Your task to perform on an android device: change timer sound Image 0: 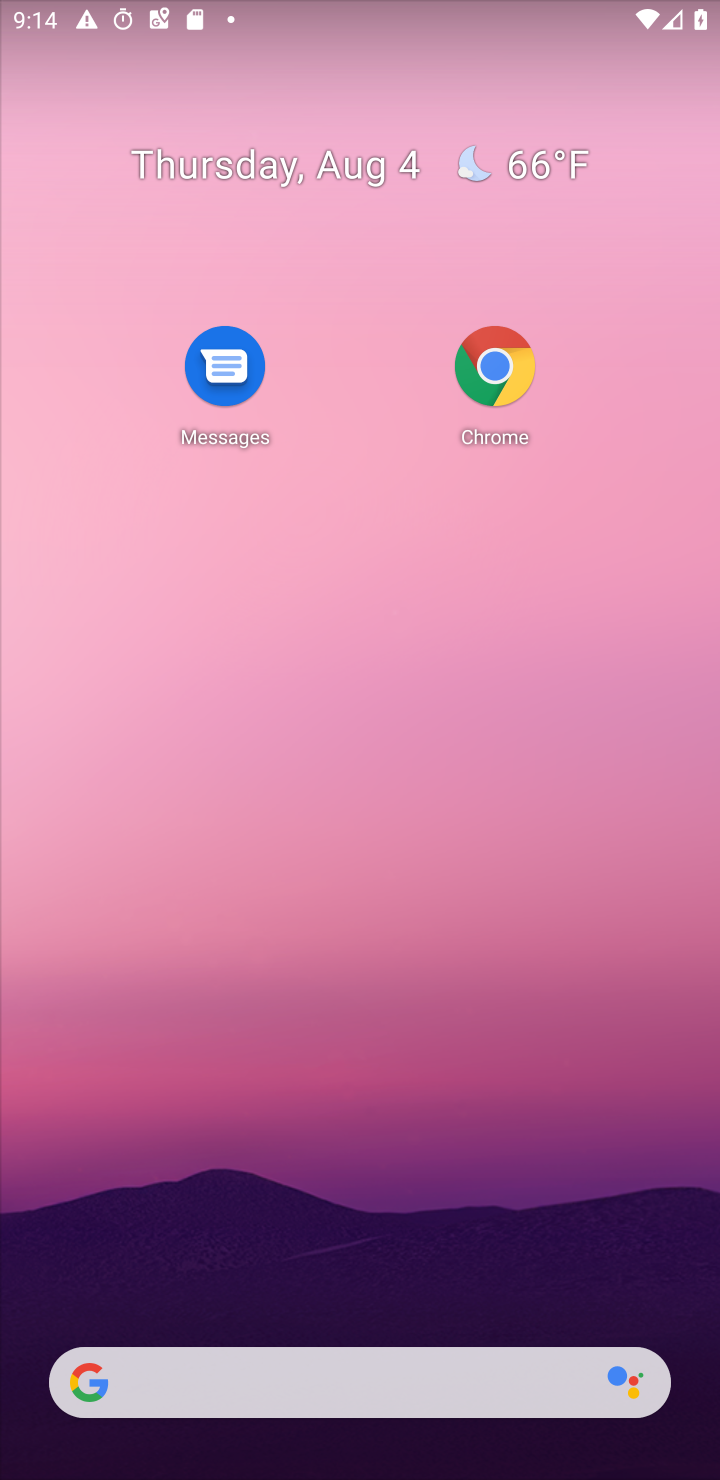
Step 0: drag from (457, 1373) to (588, 109)
Your task to perform on an android device: change timer sound Image 1: 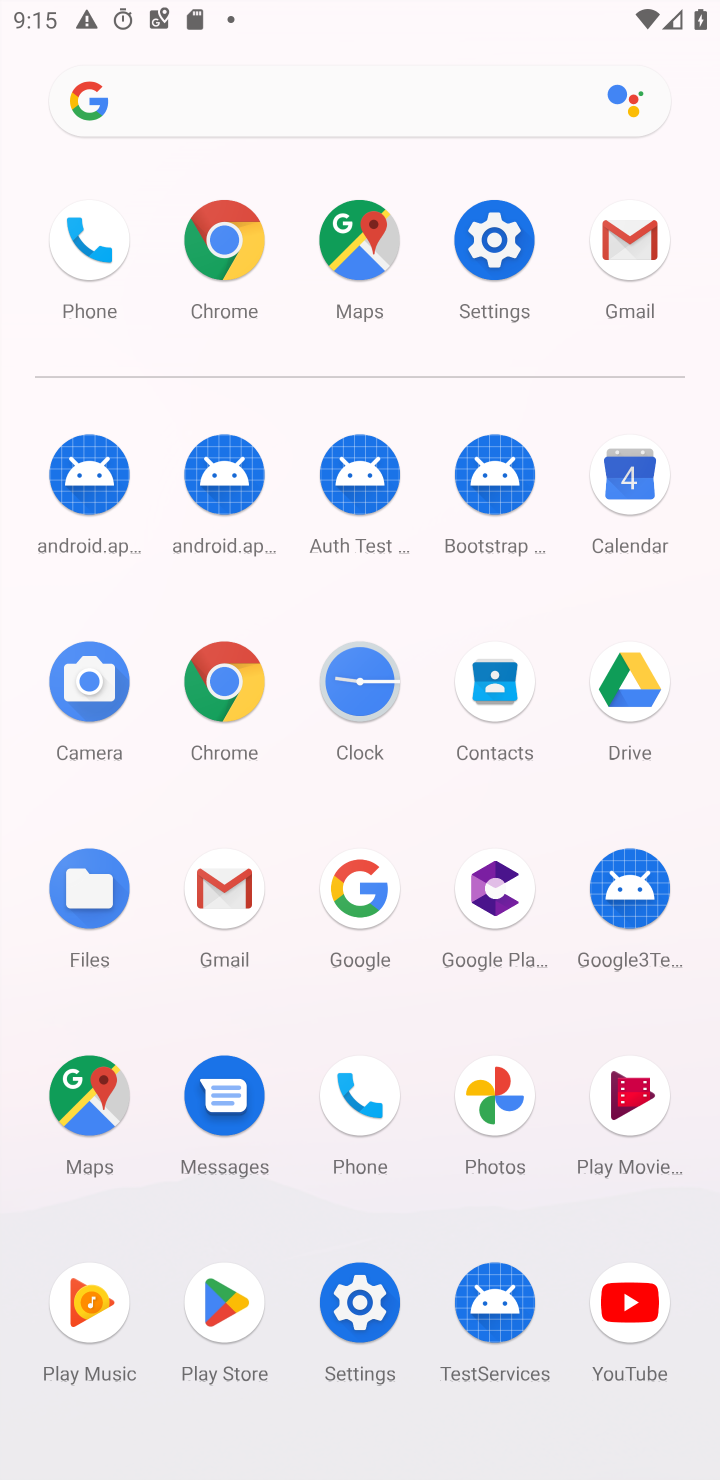
Step 1: click (536, 248)
Your task to perform on an android device: change timer sound Image 2: 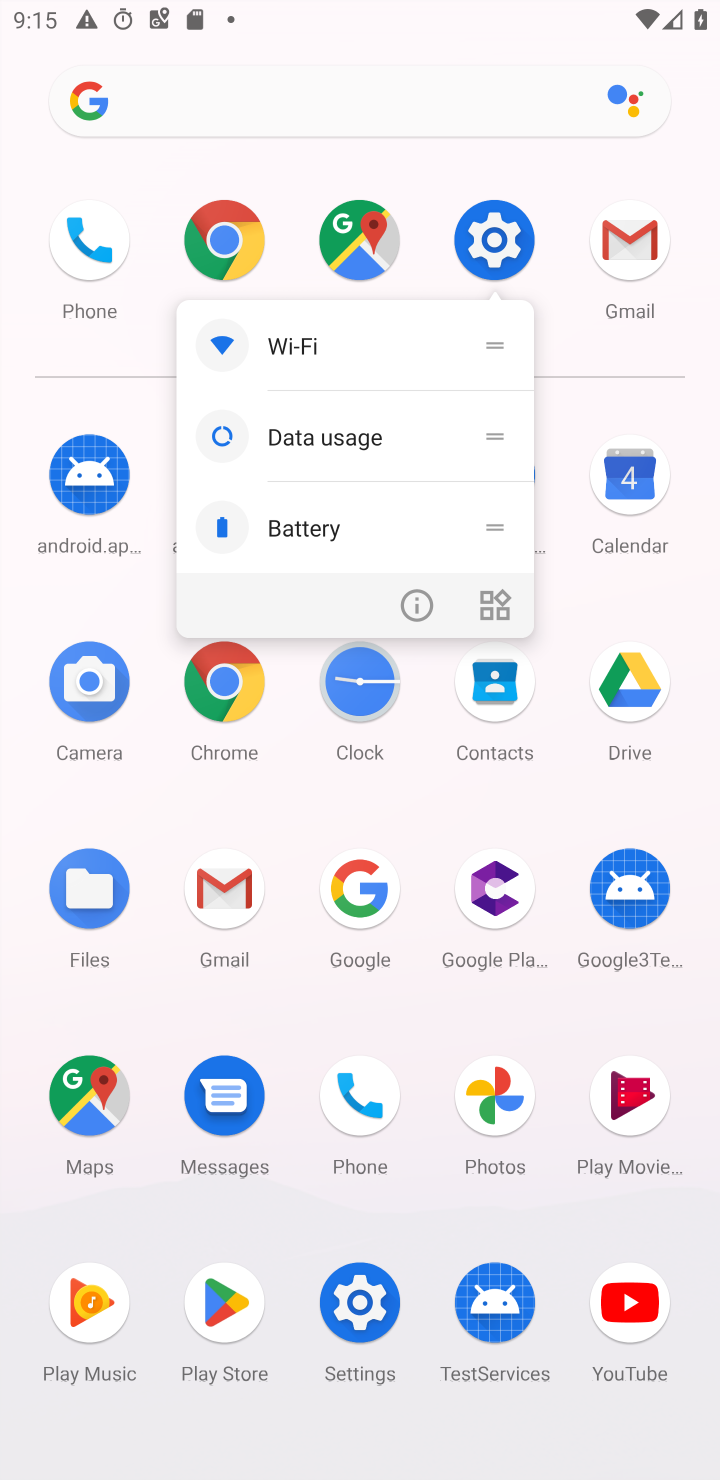
Step 2: click (492, 226)
Your task to perform on an android device: change timer sound Image 3: 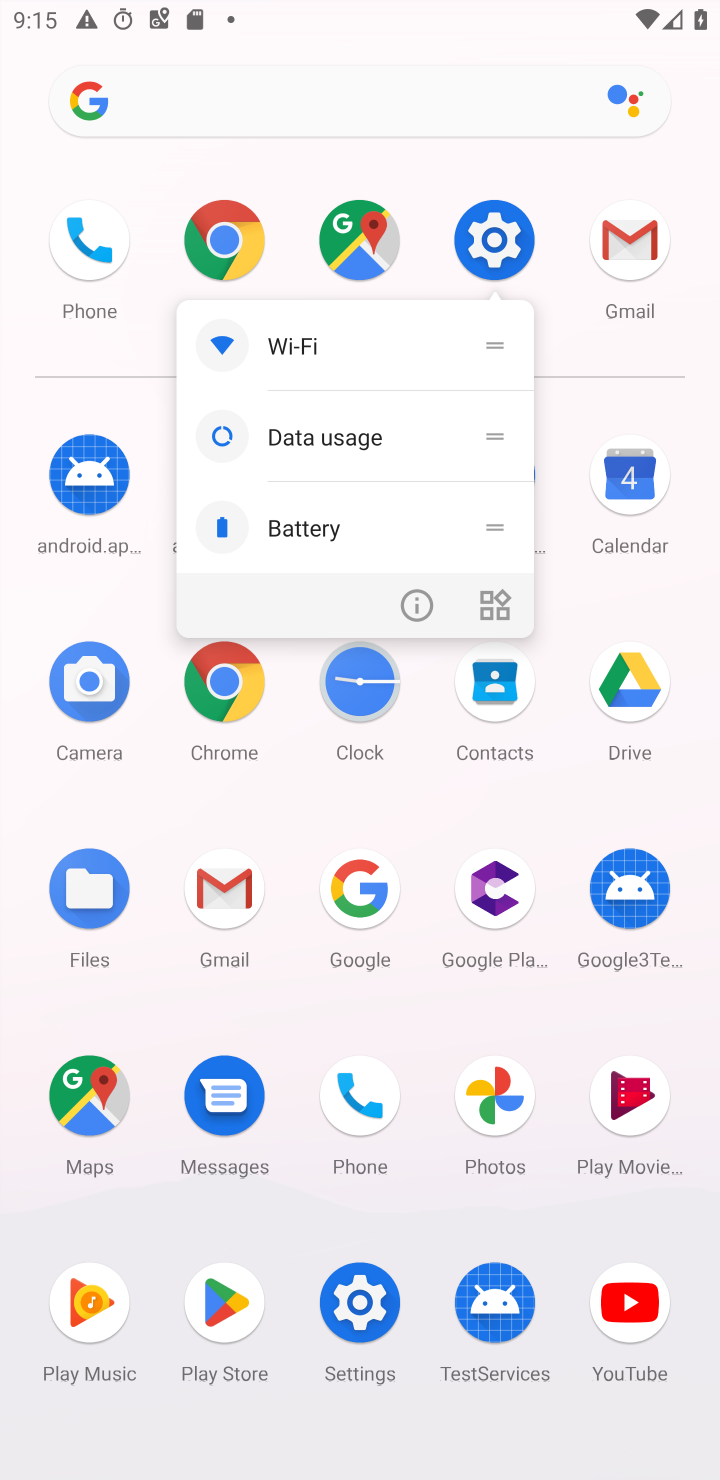
Step 3: click (494, 252)
Your task to perform on an android device: change timer sound Image 4: 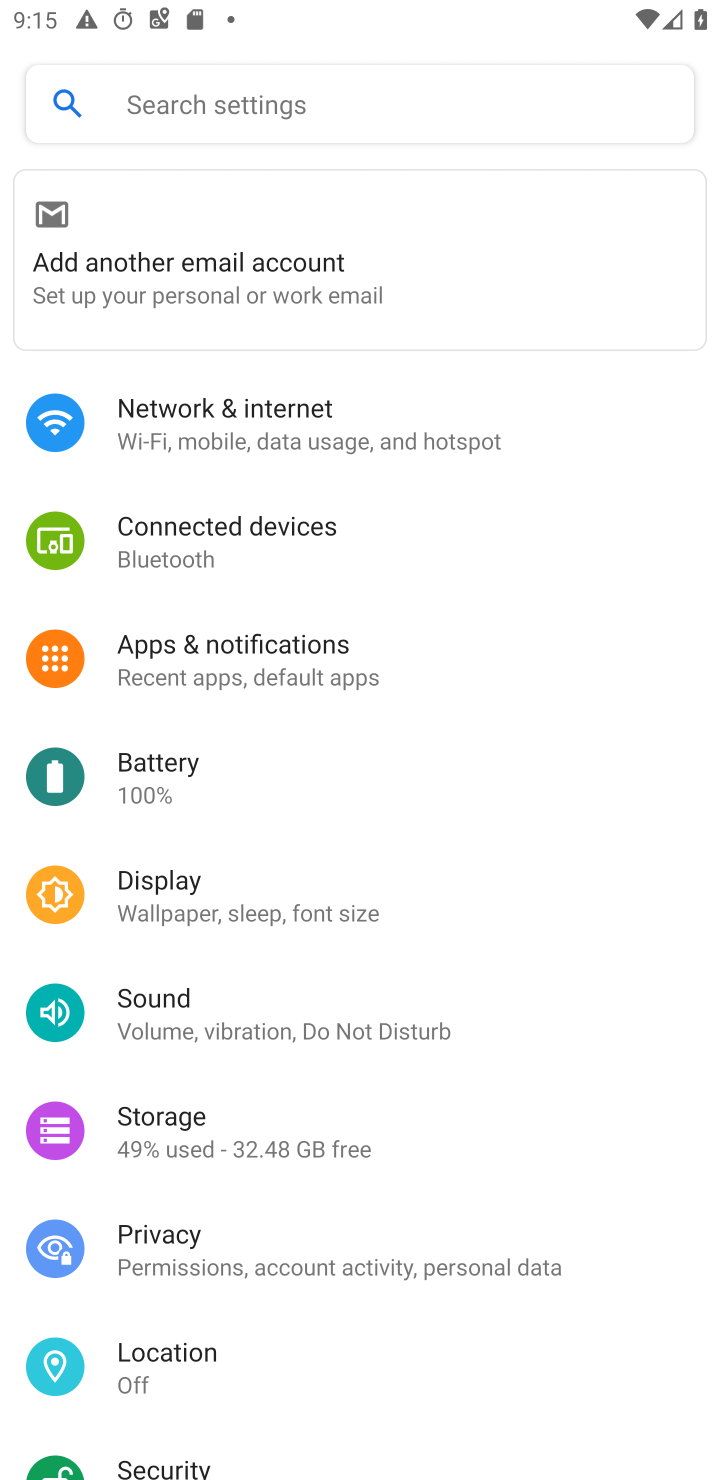
Step 4: press home button
Your task to perform on an android device: change timer sound Image 5: 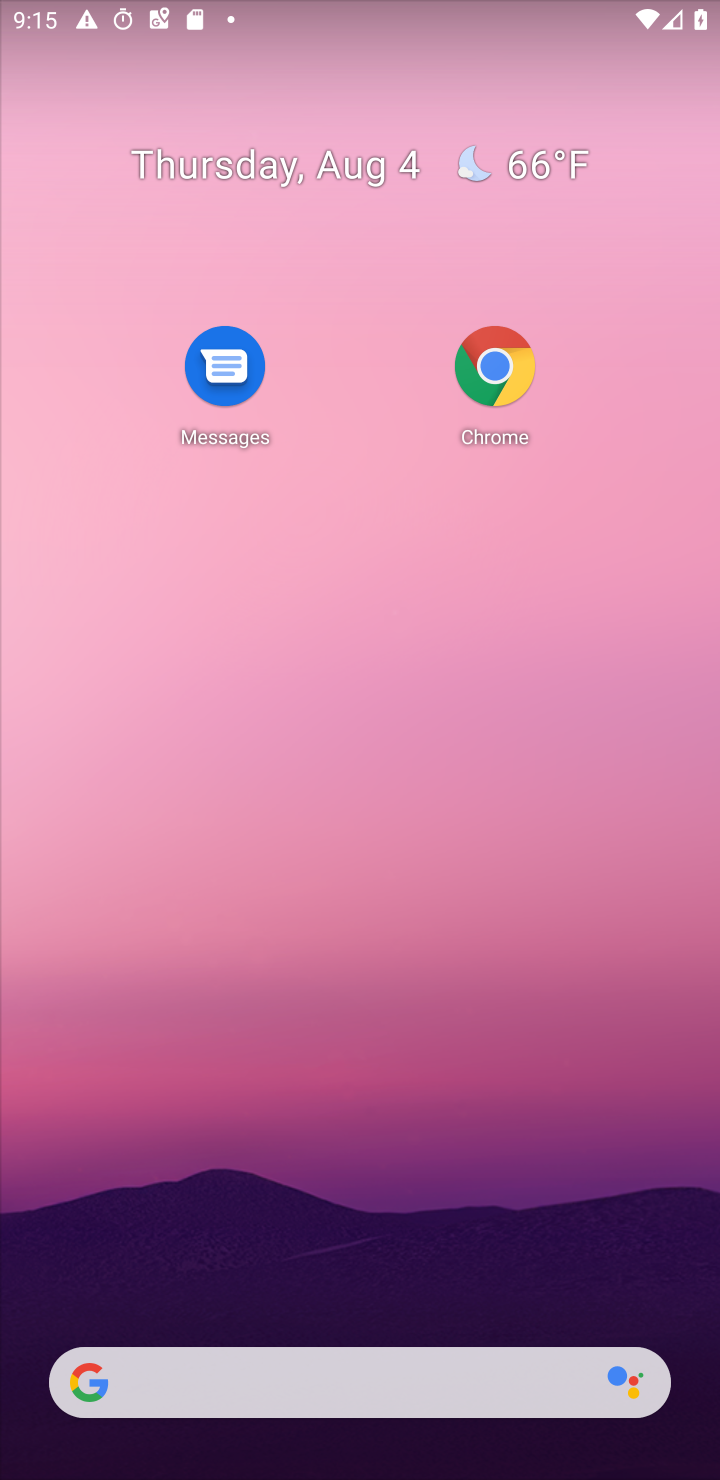
Step 5: drag from (516, 1446) to (689, 374)
Your task to perform on an android device: change timer sound Image 6: 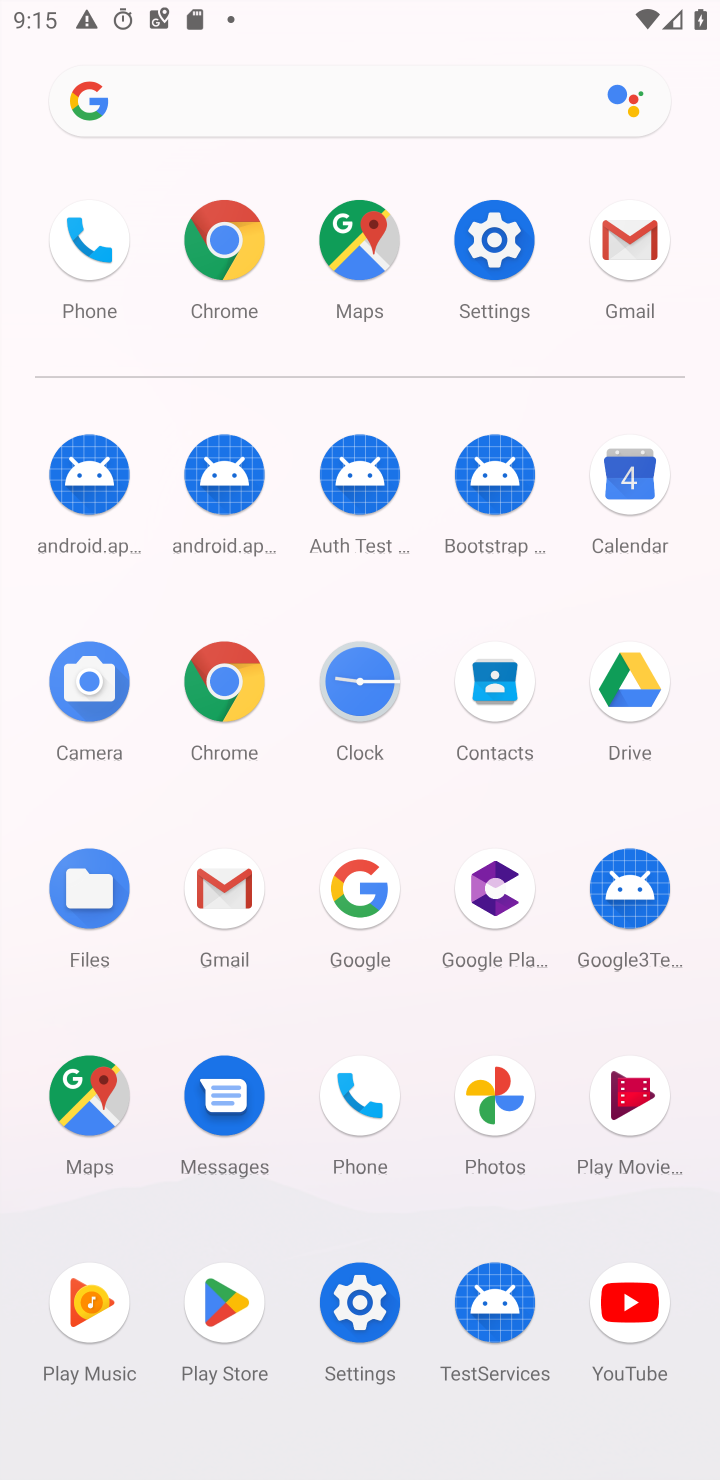
Step 6: click (375, 710)
Your task to perform on an android device: change timer sound Image 7: 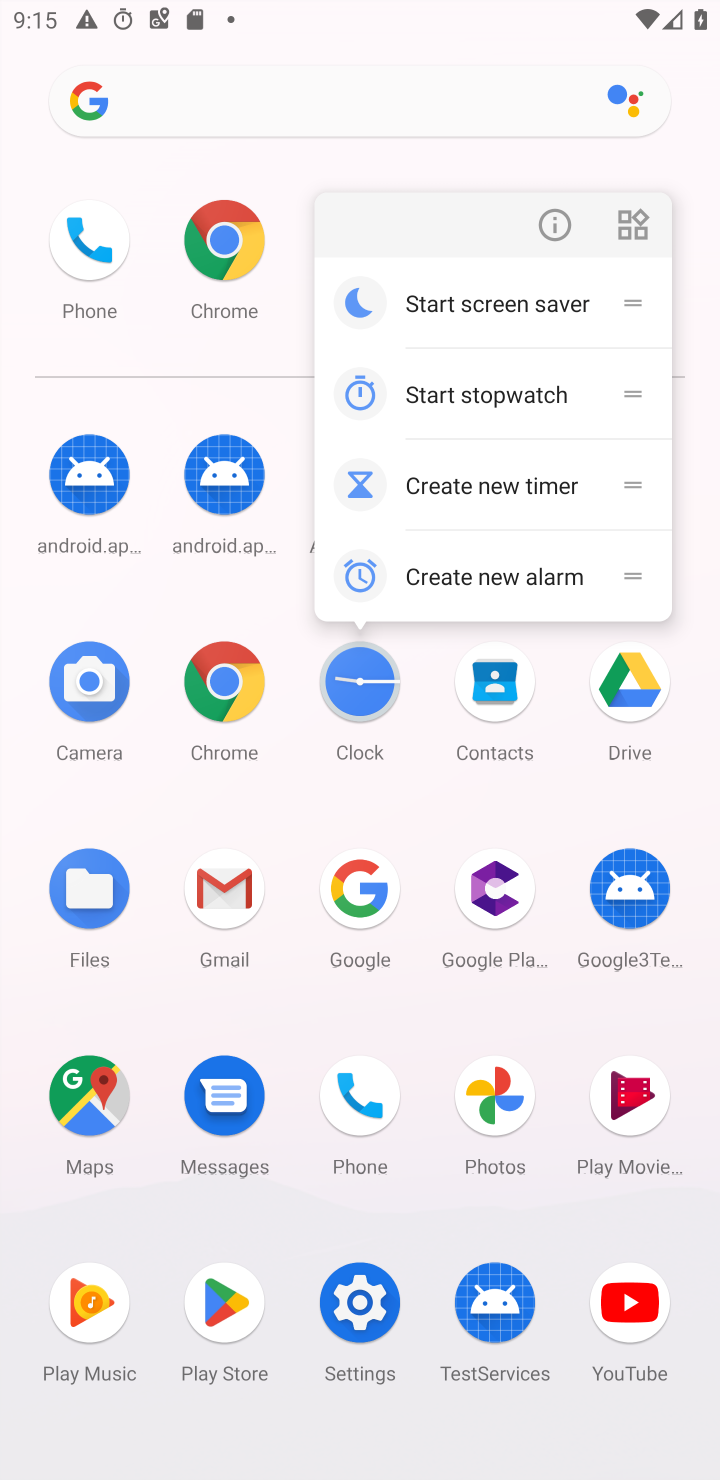
Step 7: click (374, 685)
Your task to perform on an android device: change timer sound Image 8: 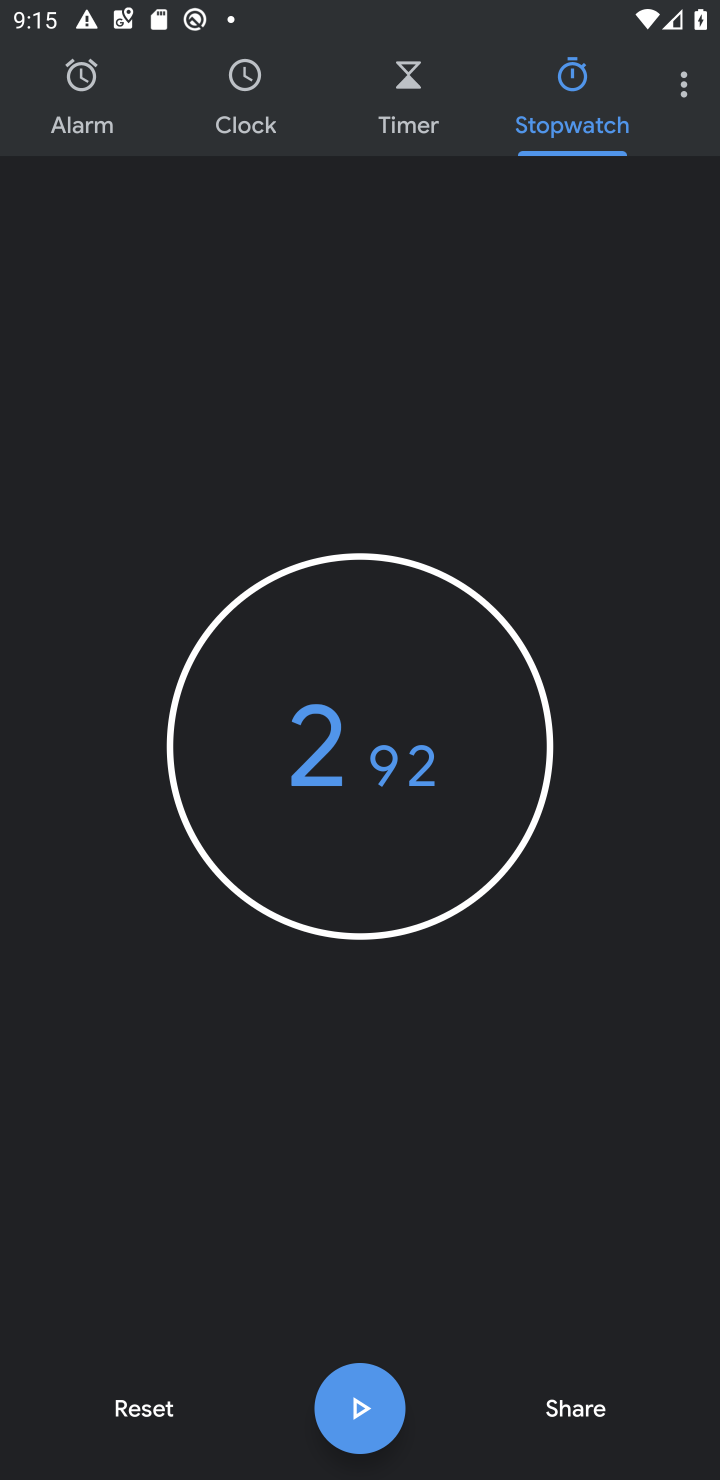
Step 8: click (682, 107)
Your task to perform on an android device: change timer sound Image 9: 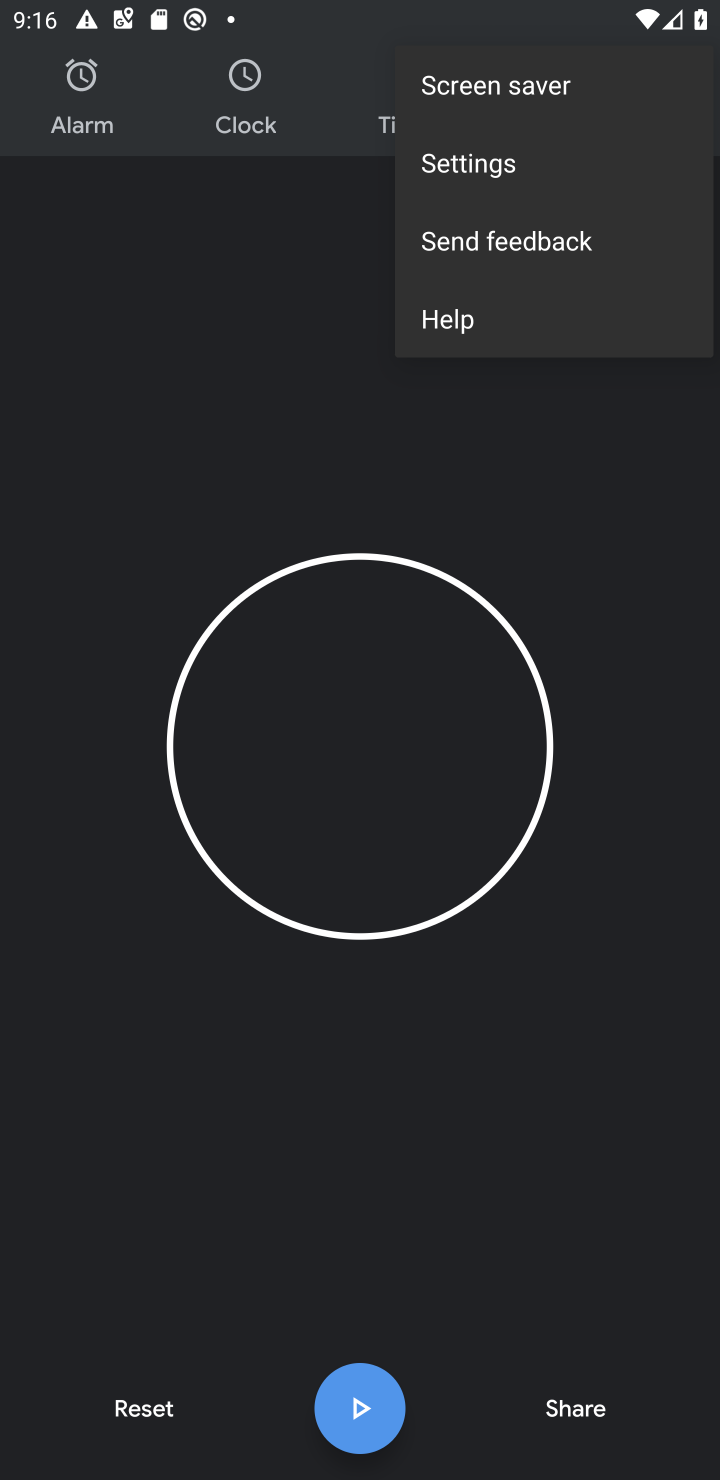
Step 9: click (494, 157)
Your task to perform on an android device: change timer sound Image 10: 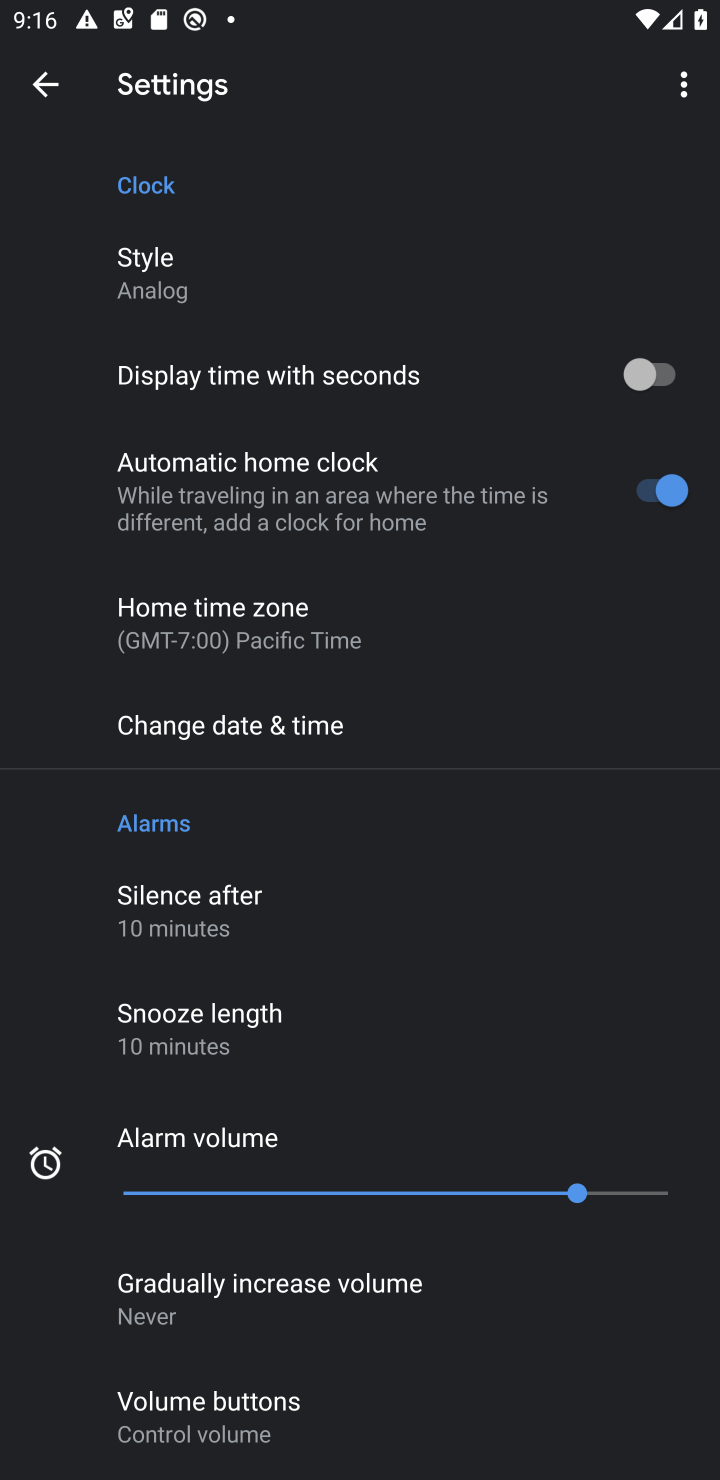
Step 10: drag from (380, 1256) to (575, 750)
Your task to perform on an android device: change timer sound Image 11: 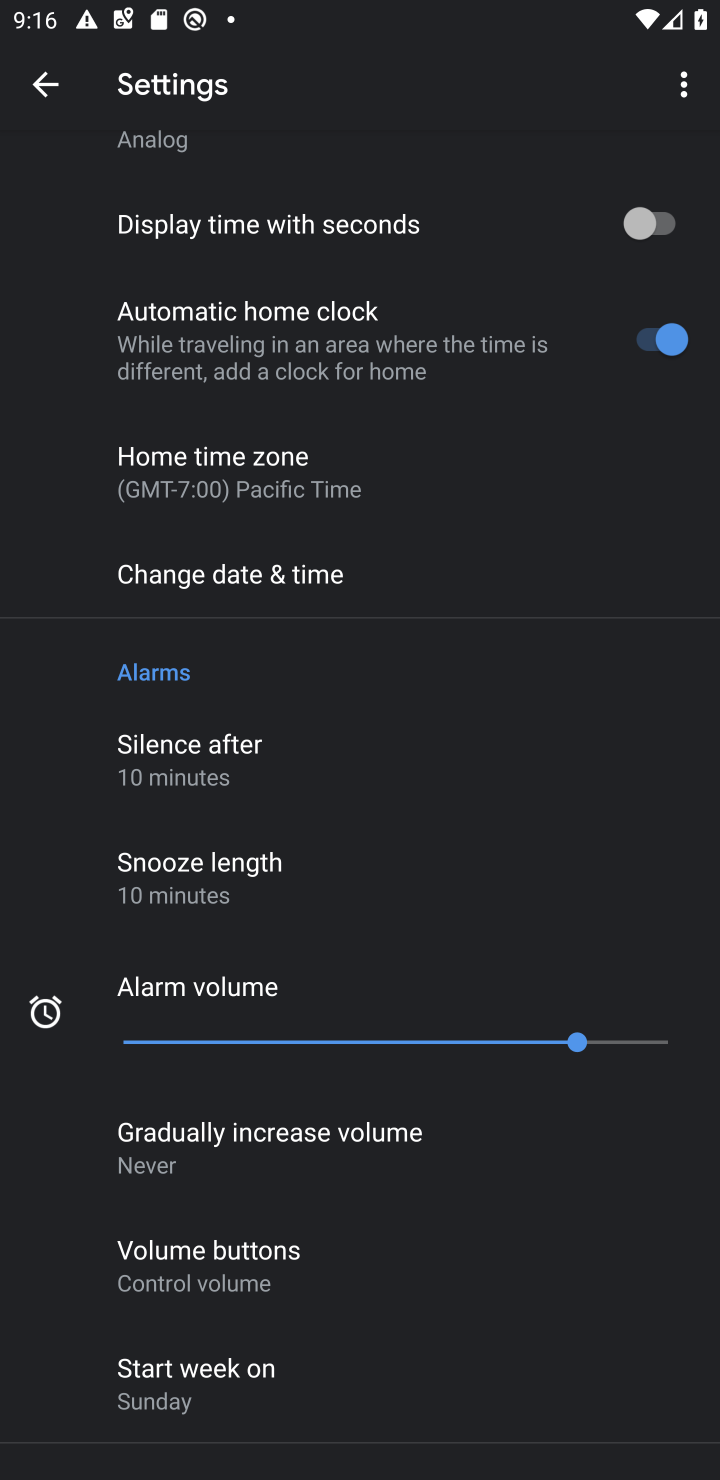
Step 11: drag from (313, 1273) to (503, 868)
Your task to perform on an android device: change timer sound Image 12: 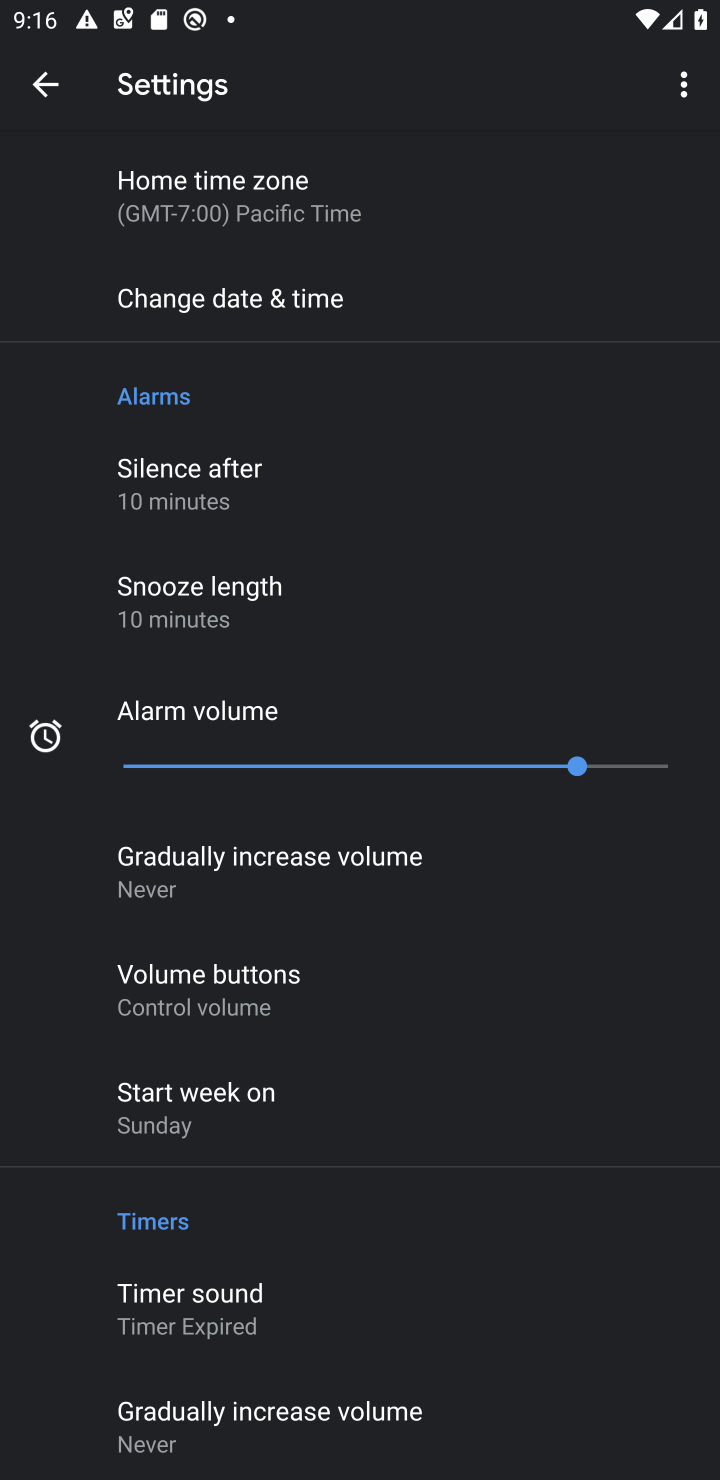
Step 12: click (170, 1302)
Your task to perform on an android device: change timer sound Image 13: 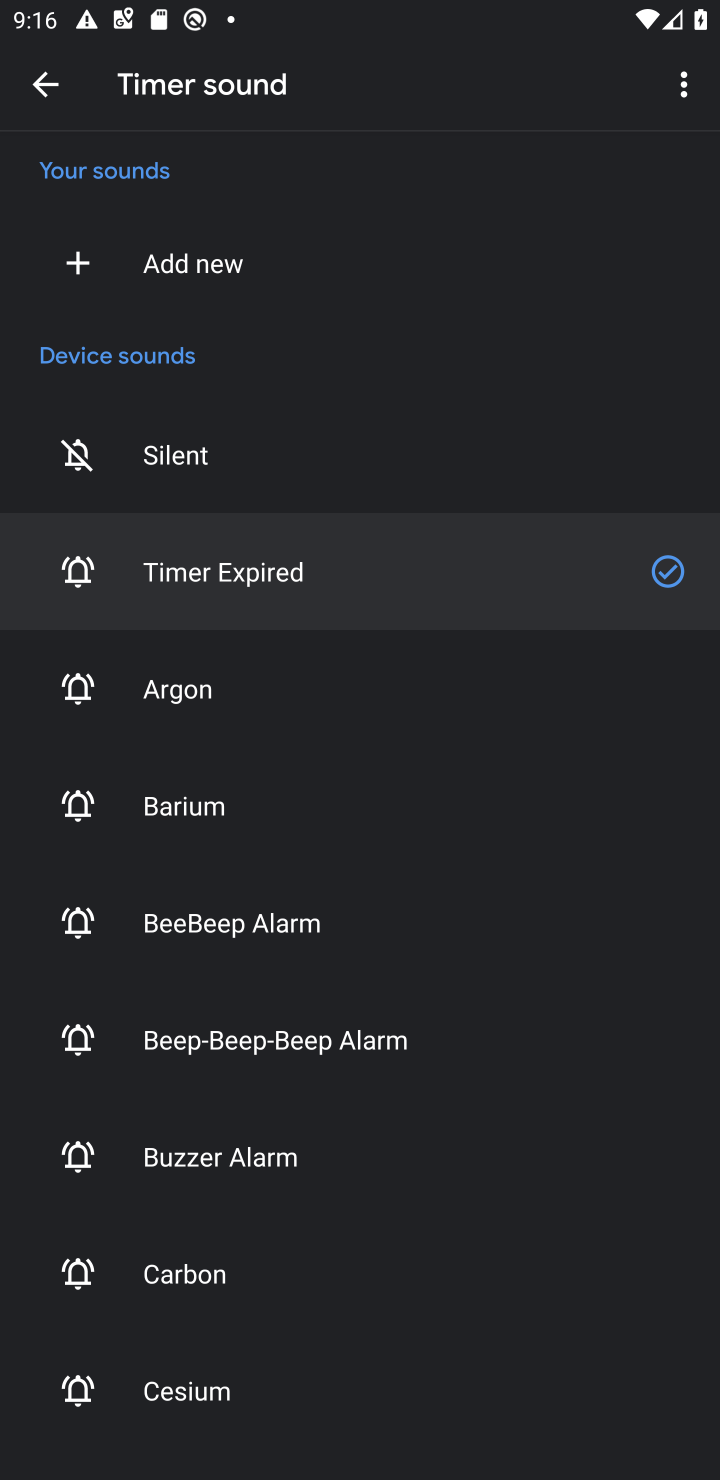
Step 13: click (211, 1033)
Your task to perform on an android device: change timer sound Image 14: 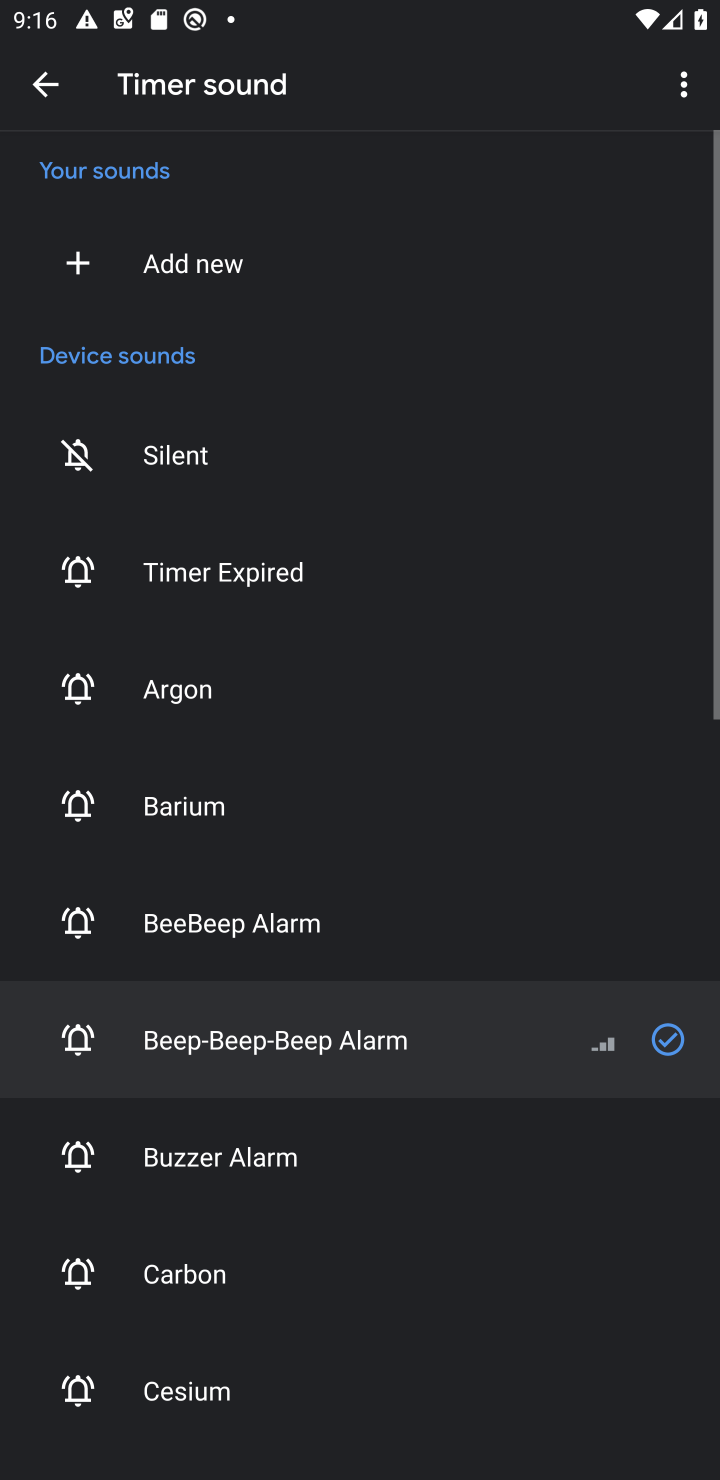
Step 14: task complete